Your task to perform on an android device: Is it going to rain today? Image 0: 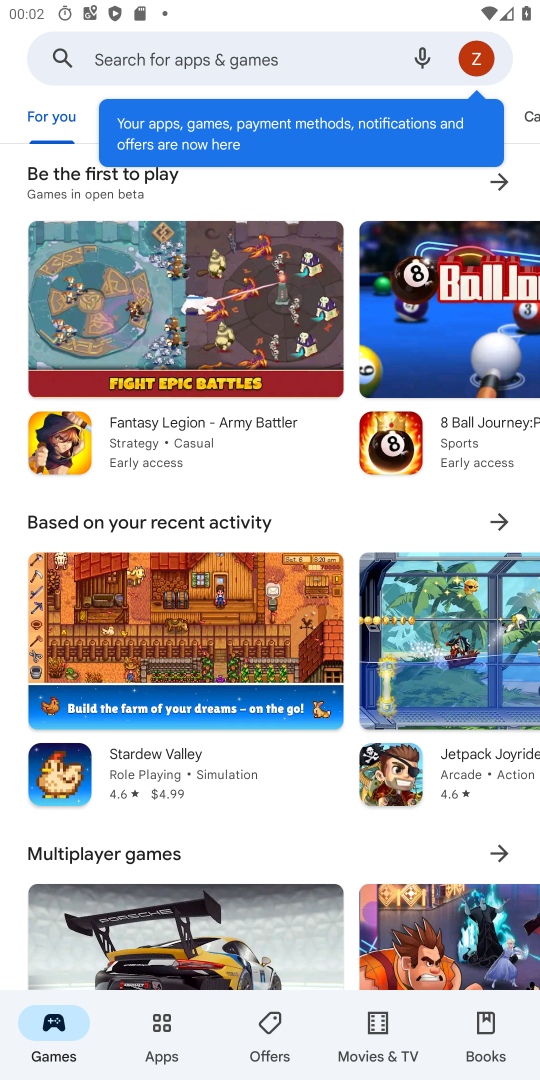
Step 0: press home button
Your task to perform on an android device: Is it going to rain today? Image 1: 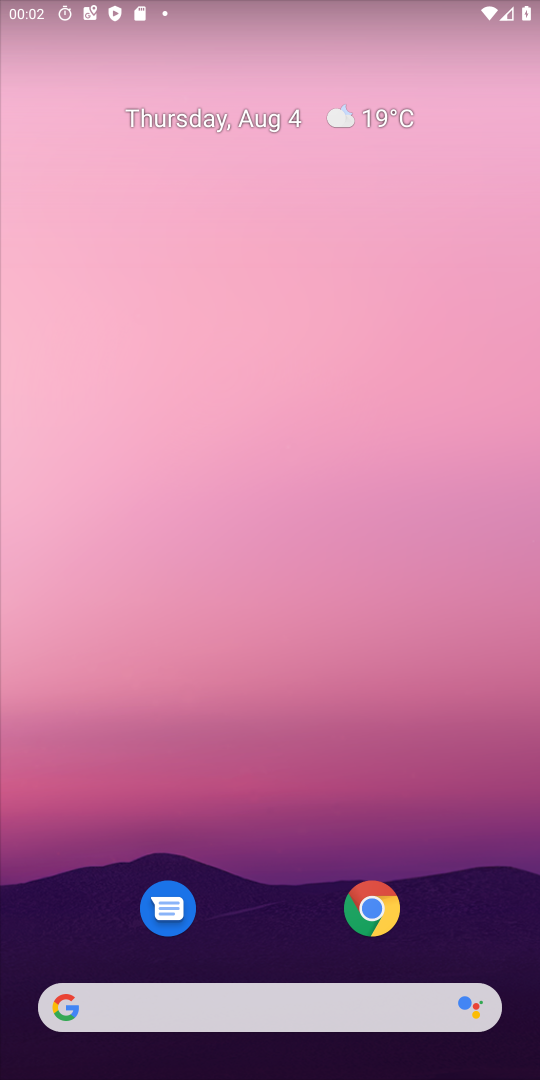
Step 1: drag from (333, 1027) to (456, 330)
Your task to perform on an android device: Is it going to rain today? Image 2: 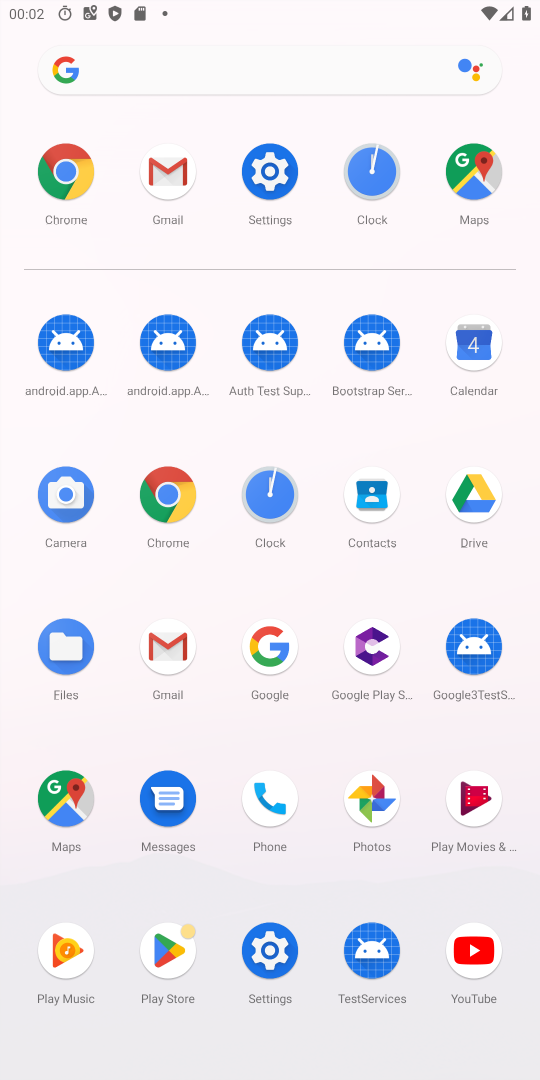
Step 2: click (215, 57)
Your task to perform on an android device: Is it going to rain today? Image 3: 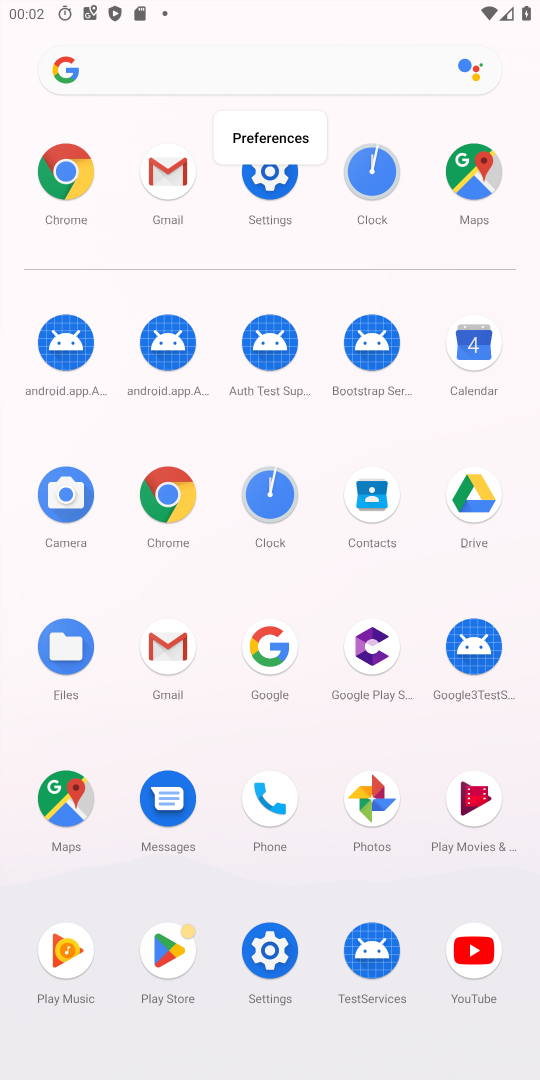
Step 3: click (196, 86)
Your task to perform on an android device: Is it going to rain today? Image 4: 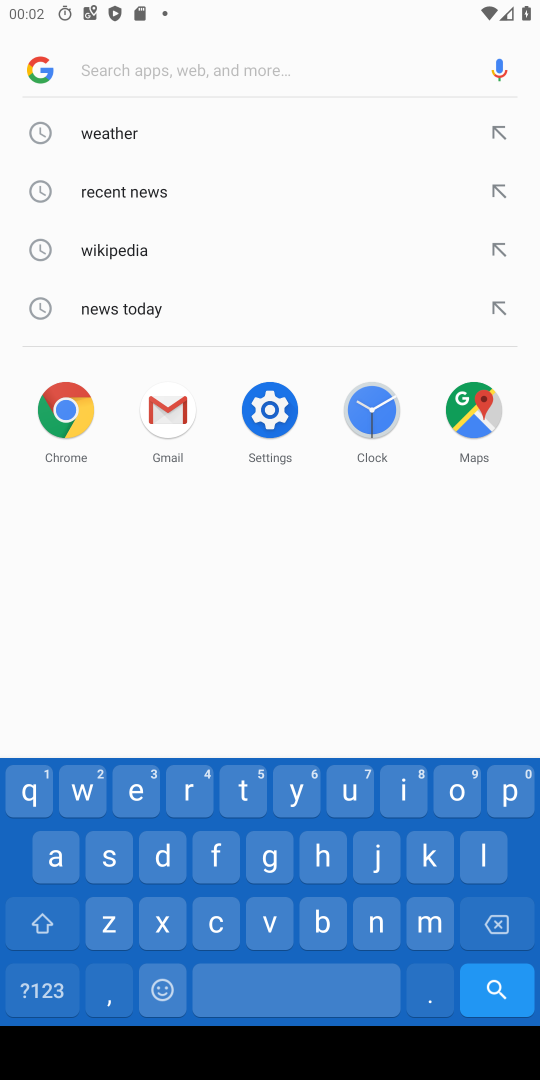
Step 4: click (398, 801)
Your task to perform on an android device: Is it going to rain today? Image 5: 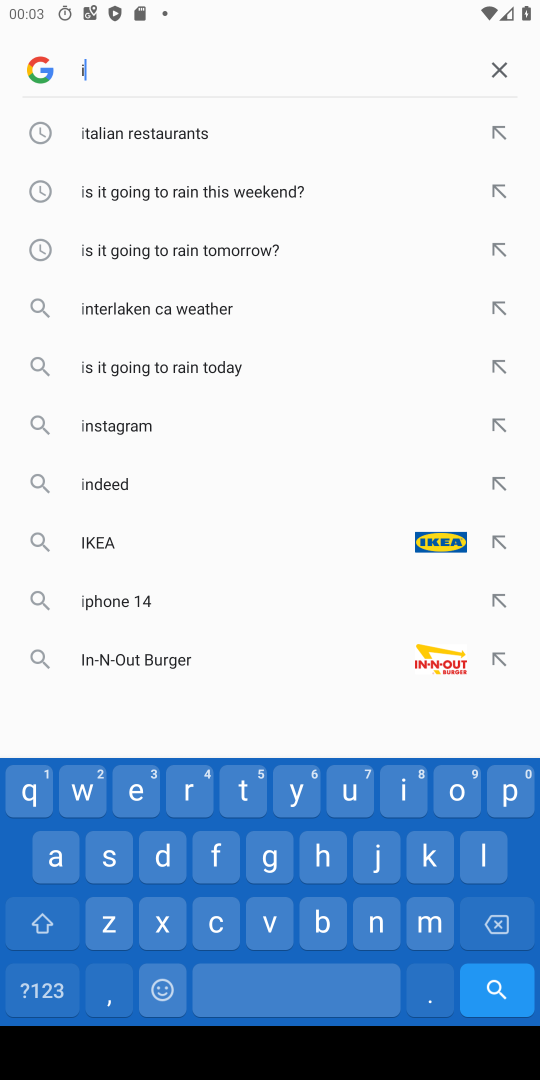
Step 5: click (229, 371)
Your task to perform on an android device: Is it going to rain today? Image 6: 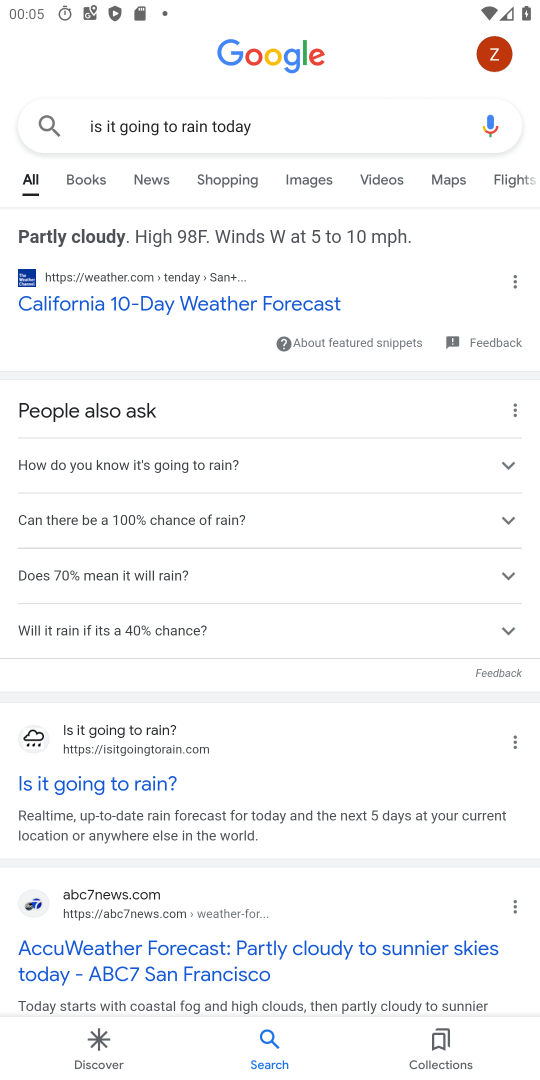
Step 6: task complete